Your task to perform on an android device: star an email in the gmail app Image 0: 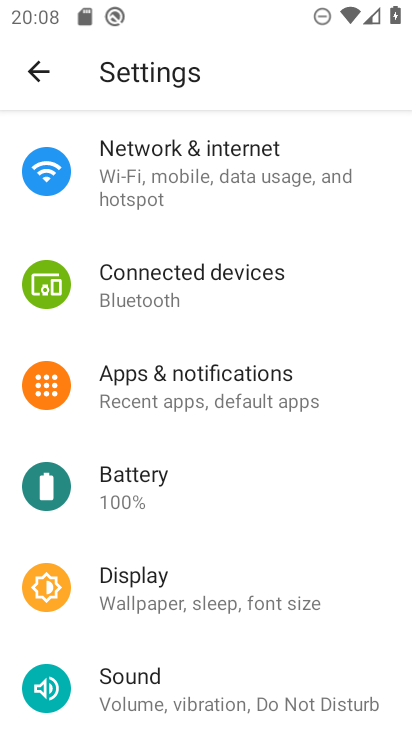
Step 0: press home button
Your task to perform on an android device: star an email in the gmail app Image 1: 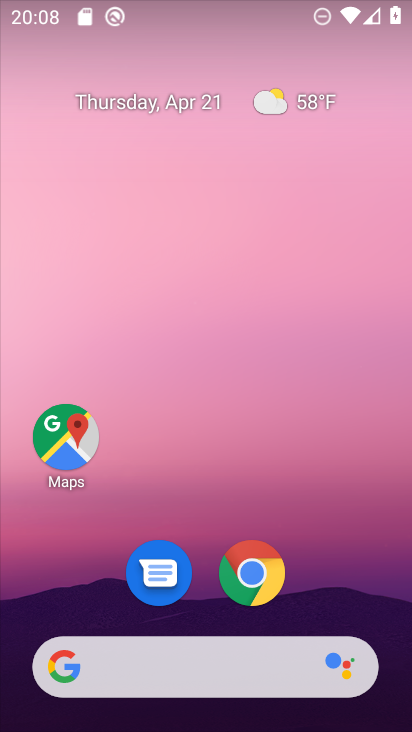
Step 1: drag from (162, 629) to (191, 171)
Your task to perform on an android device: star an email in the gmail app Image 2: 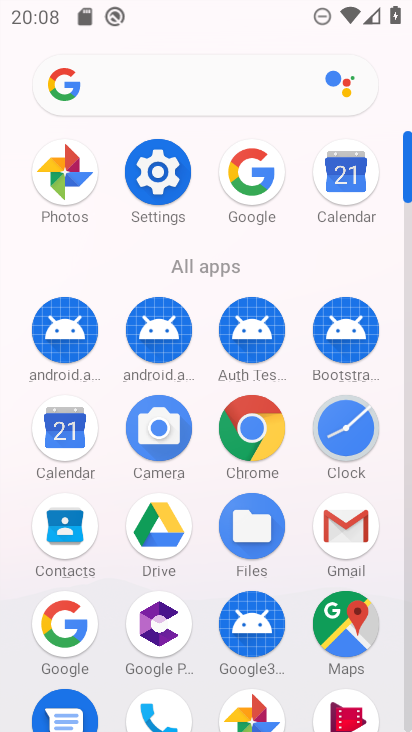
Step 2: click (349, 529)
Your task to perform on an android device: star an email in the gmail app Image 3: 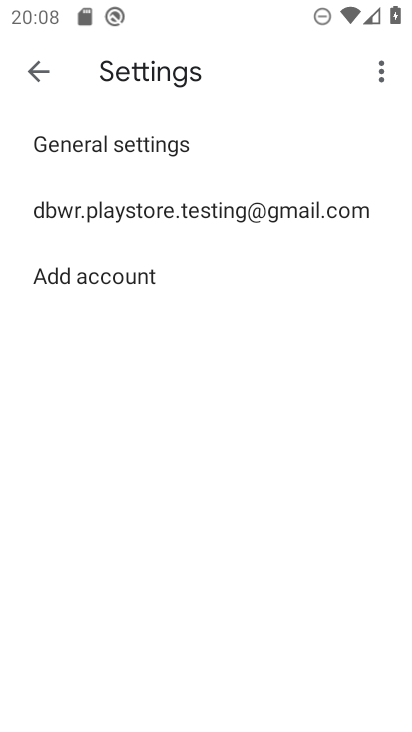
Step 3: click (46, 79)
Your task to perform on an android device: star an email in the gmail app Image 4: 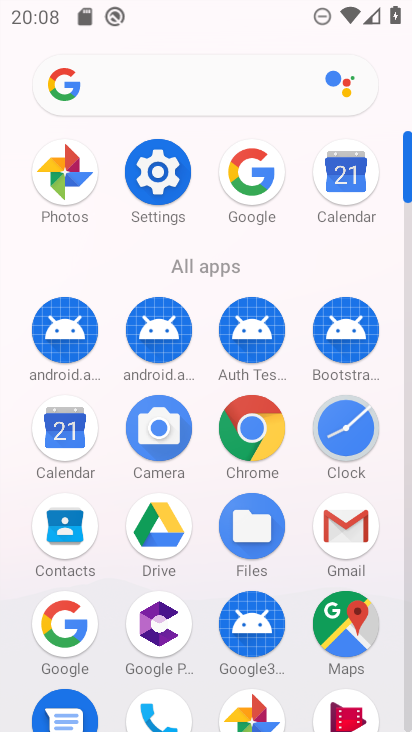
Step 4: click (352, 544)
Your task to perform on an android device: star an email in the gmail app Image 5: 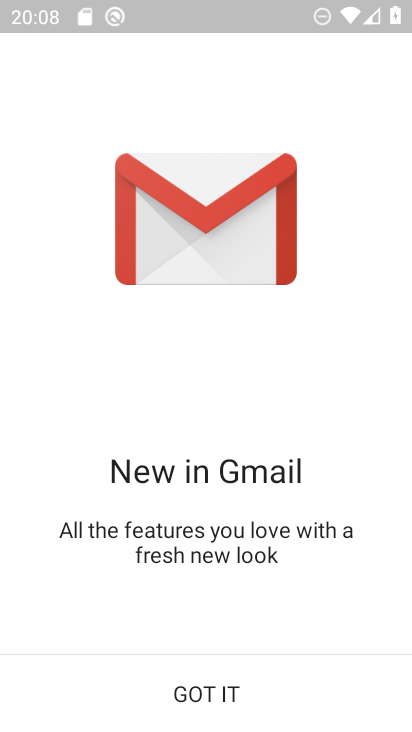
Step 5: click (188, 698)
Your task to perform on an android device: star an email in the gmail app Image 6: 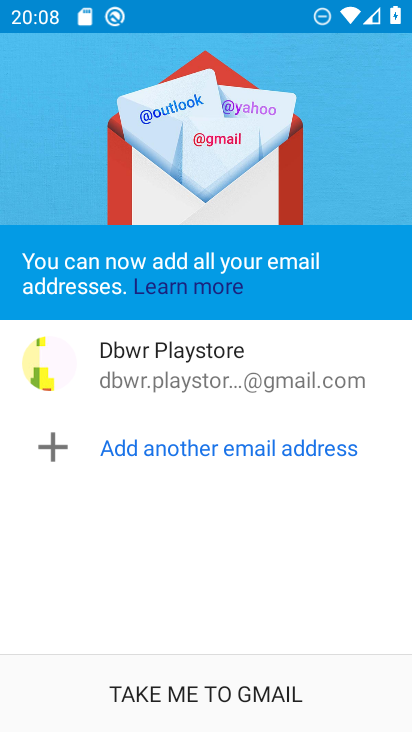
Step 6: click (188, 698)
Your task to perform on an android device: star an email in the gmail app Image 7: 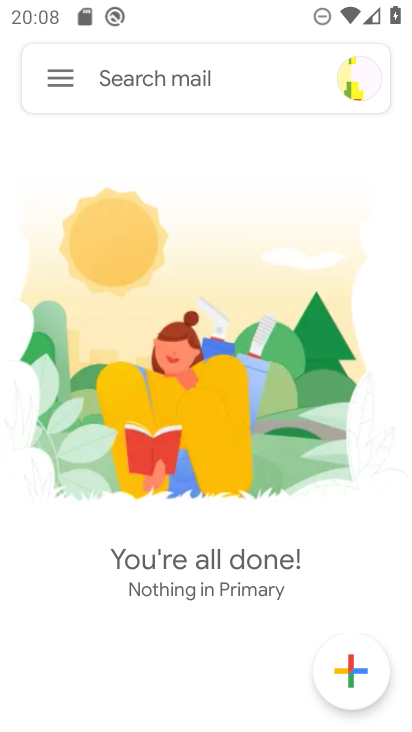
Step 7: click (60, 79)
Your task to perform on an android device: star an email in the gmail app Image 8: 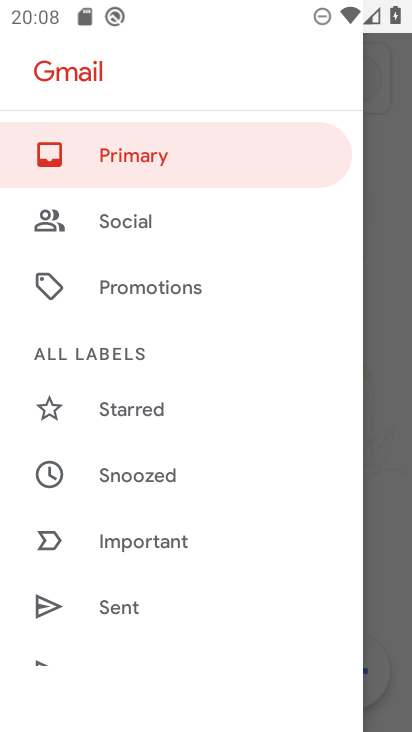
Step 8: drag from (124, 623) to (155, 233)
Your task to perform on an android device: star an email in the gmail app Image 9: 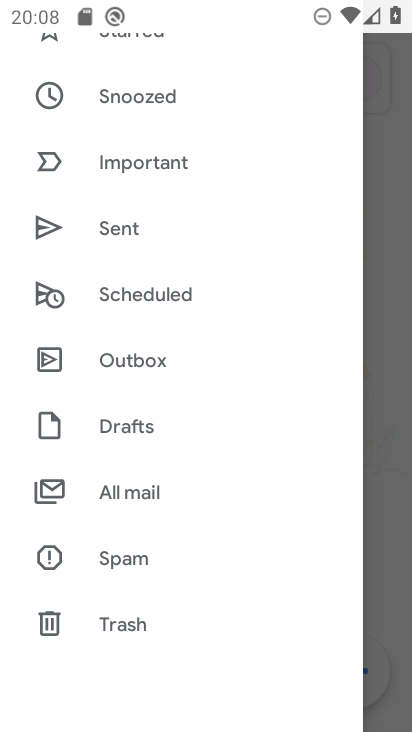
Step 9: click (139, 495)
Your task to perform on an android device: star an email in the gmail app Image 10: 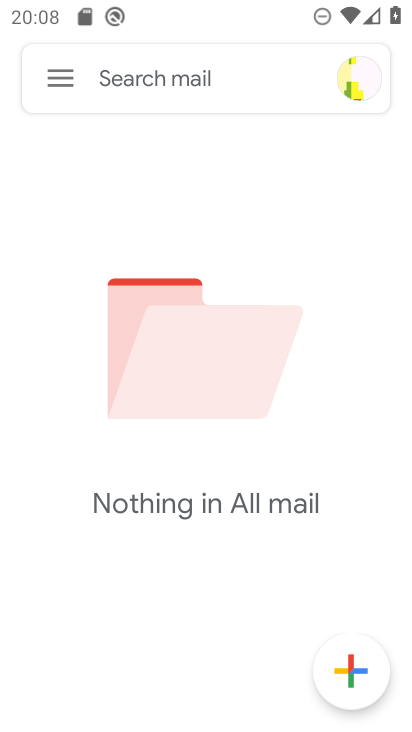
Step 10: task complete